Your task to perform on an android device: Do I have any events this weekend? Image 0: 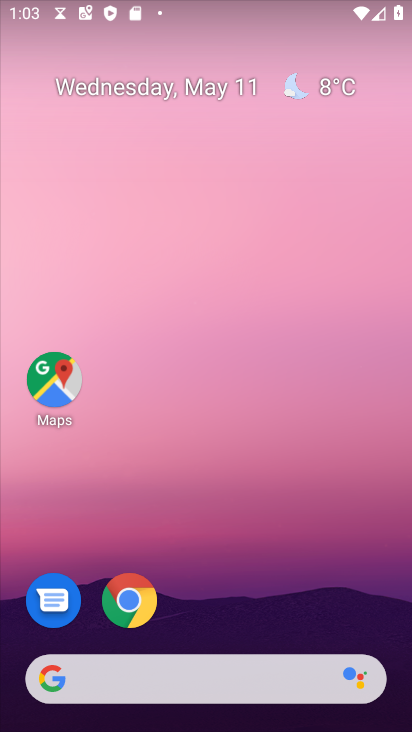
Step 0: press home button
Your task to perform on an android device: Do I have any events this weekend? Image 1: 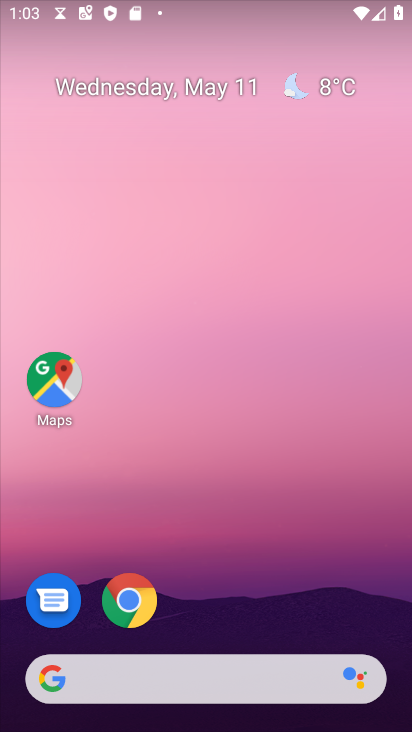
Step 1: drag from (286, 527) to (220, 20)
Your task to perform on an android device: Do I have any events this weekend? Image 2: 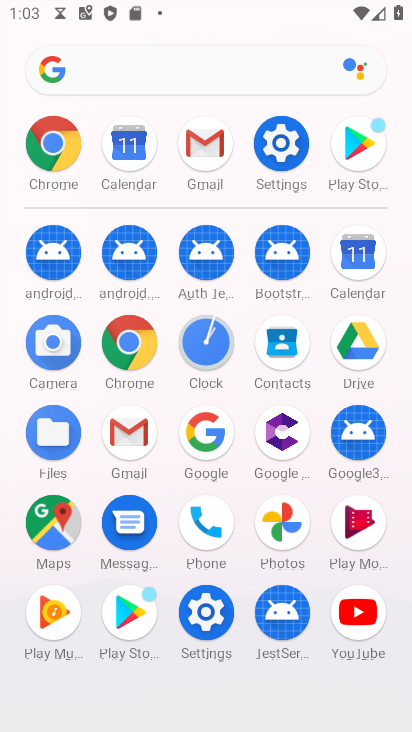
Step 2: click (354, 256)
Your task to perform on an android device: Do I have any events this weekend? Image 3: 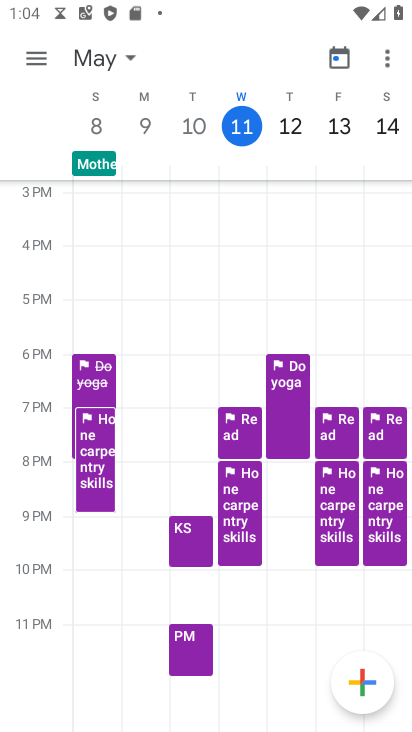
Step 3: task complete